Your task to perform on an android device: Open the stopwatch Image 0: 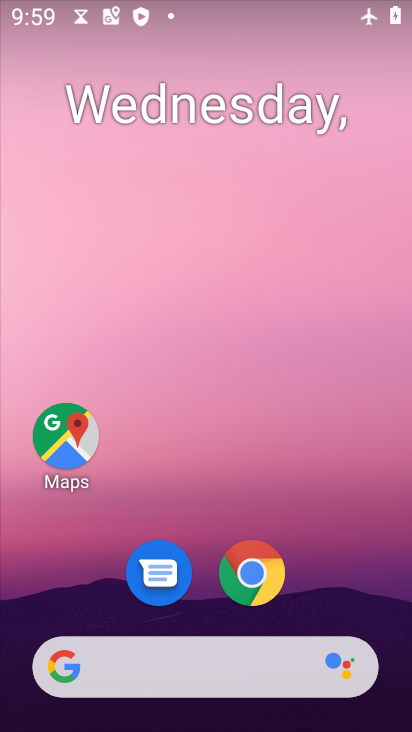
Step 0: drag from (322, 404) to (313, 199)
Your task to perform on an android device: Open the stopwatch Image 1: 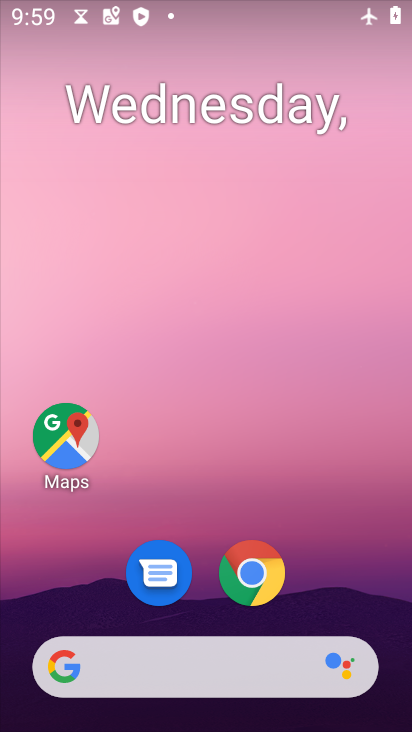
Step 1: drag from (285, 585) to (272, 209)
Your task to perform on an android device: Open the stopwatch Image 2: 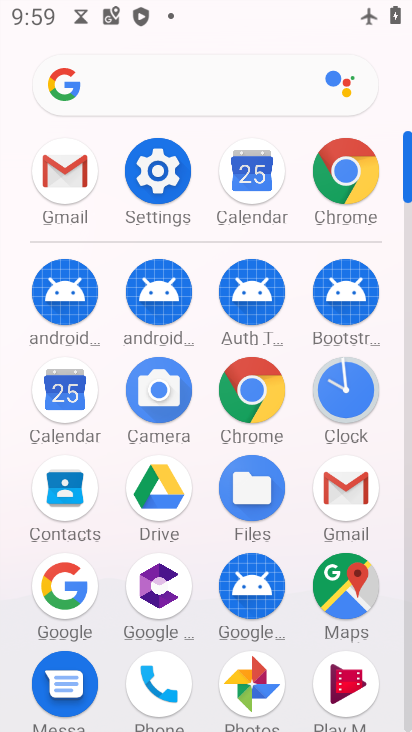
Step 2: click (352, 401)
Your task to perform on an android device: Open the stopwatch Image 3: 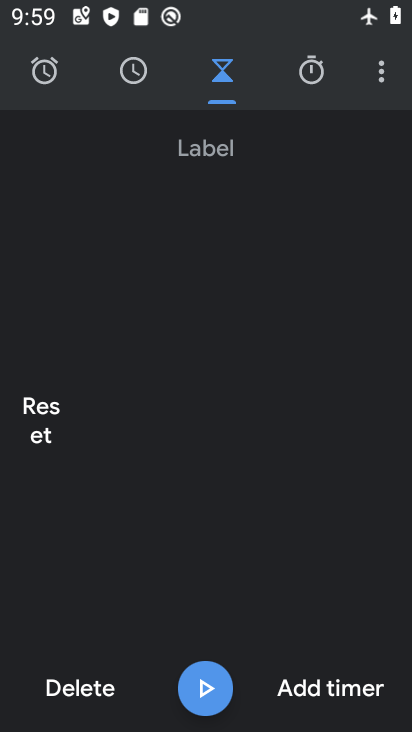
Step 3: click (299, 62)
Your task to perform on an android device: Open the stopwatch Image 4: 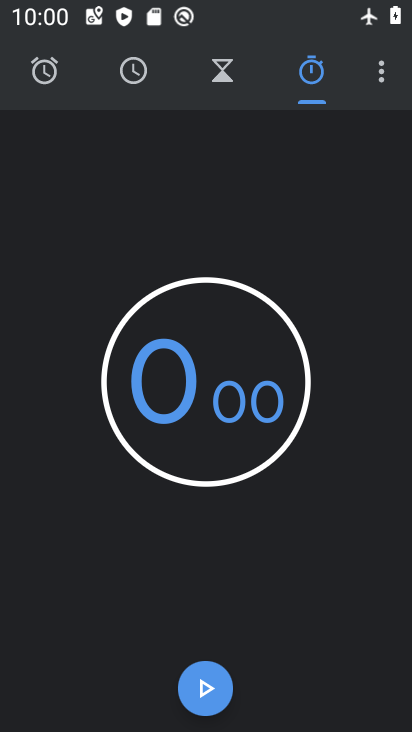
Step 4: task complete